Your task to perform on an android device: Open Chrome and go to the settings page Image 0: 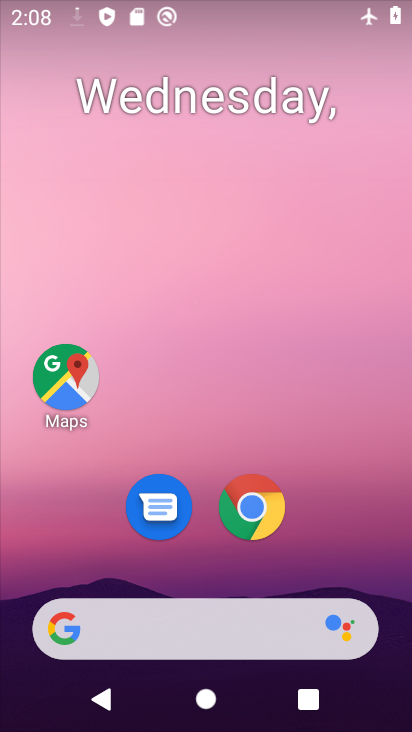
Step 0: click (271, 520)
Your task to perform on an android device: Open Chrome and go to the settings page Image 1: 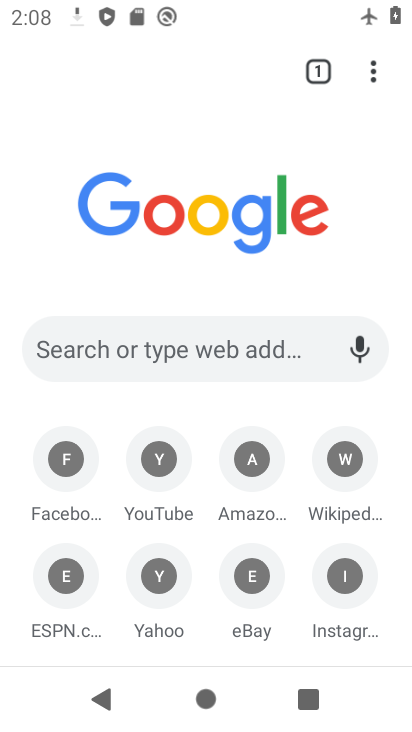
Step 1: click (375, 56)
Your task to perform on an android device: Open Chrome and go to the settings page Image 2: 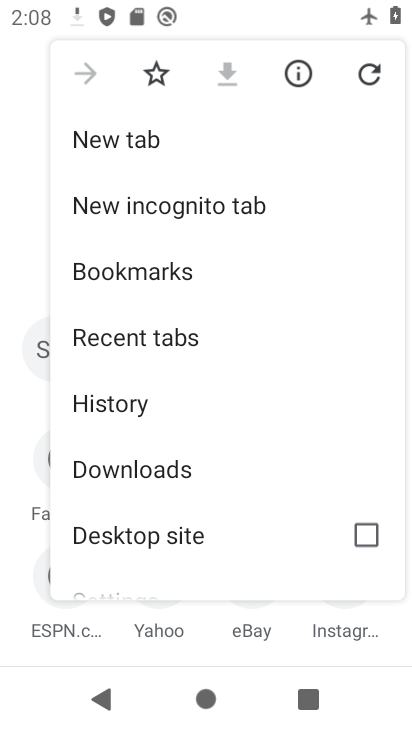
Step 2: drag from (238, 428) to (248, 260)
Your task to perform on an android device: Open Chrome and go to the settings page Image 3: 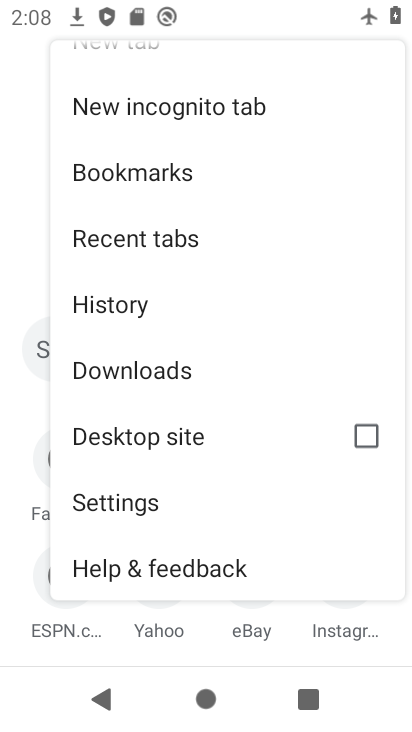
Step 3: click (154, 510)
Your task to perform on an android device: Open Chrome and go to the settings page Image 4: 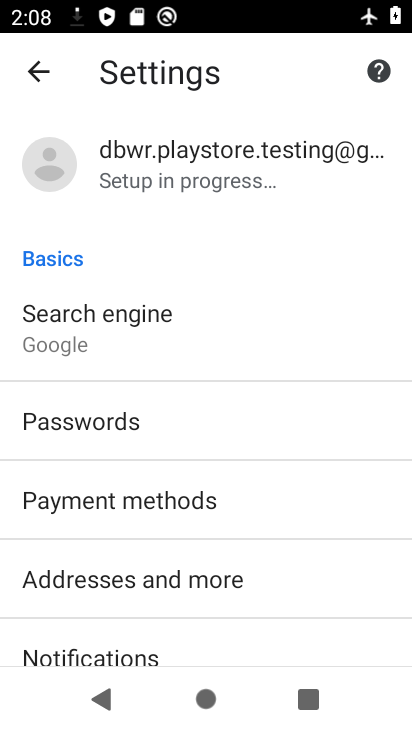
Step 4: task complete